Your task to perform on an android device: turn on wifi Image 0: 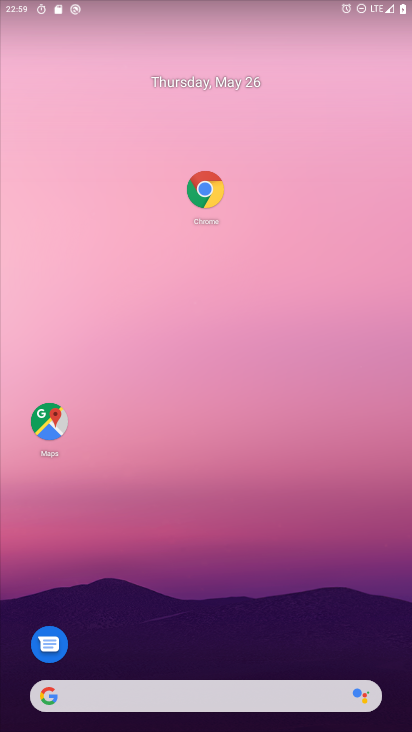
Step 0: drag from (205, 648) to (209, 407)
Your task to perform on an android device: turn on wifi Image 1: 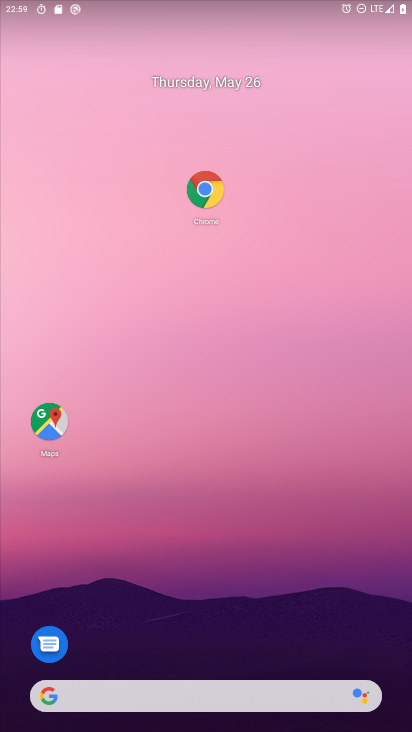
Step 1: drag from (230, 640) to (341, 183)
Your task to perform on an android device: turn on wifi Image 2: 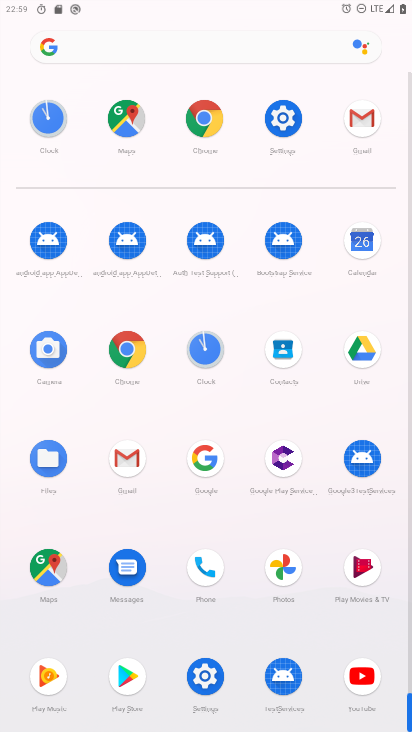
Step 2: click (270, 106)
Your task to perform on an android device: turn on wifi Image 3: 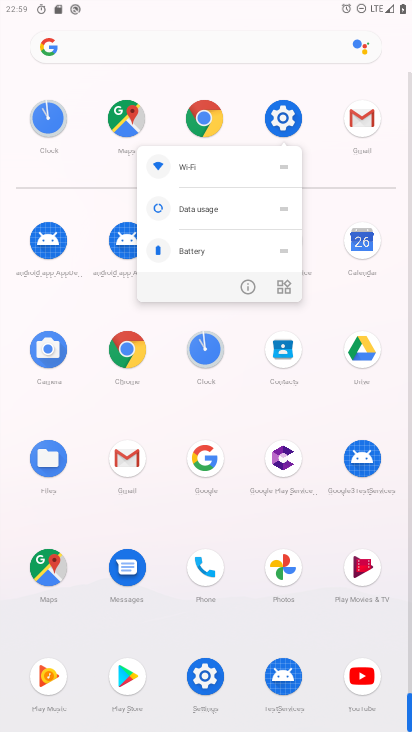
Step 3: click (198, 178)
Your task to perform on an android device: turn on wifi Image 4: 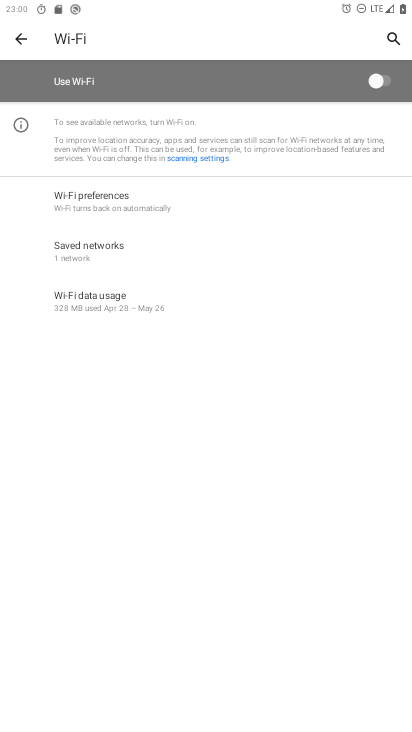
Step 4: click (372, 72)
Your task to perform on an android device: turn on wifi Image 5: 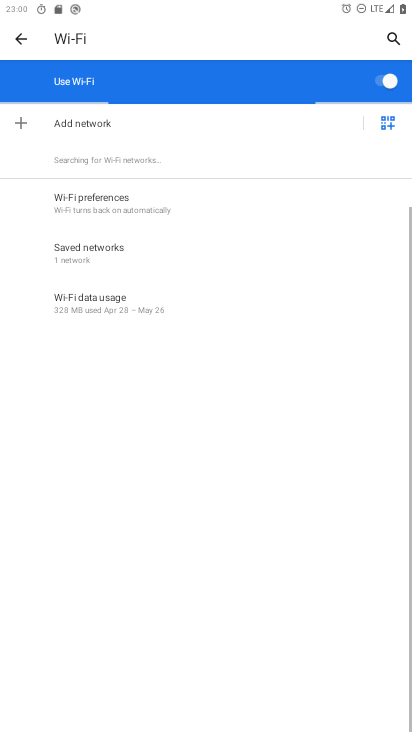
Step 5: task complete